Your task to perform on an android device: refresh tabs in the chrome app Image 0: 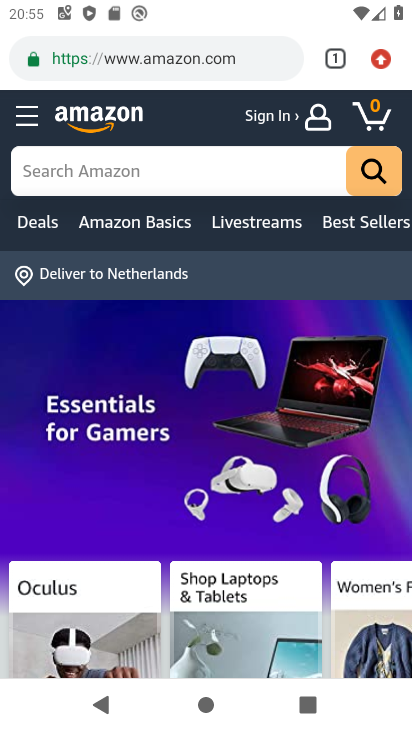
Step 0: click (381, 63)
Your task to perform on an android device: refresh tabs in the chrome app Image 1: 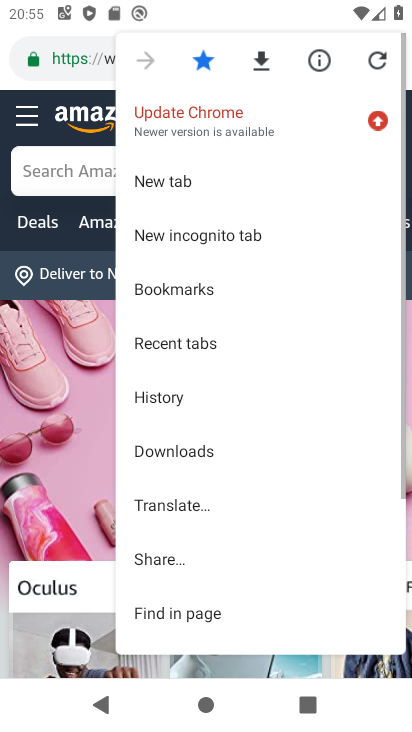
Step 1: click (381, 62)
Your task to perform on an android device: refresh tabs in the chrome app Image 2: 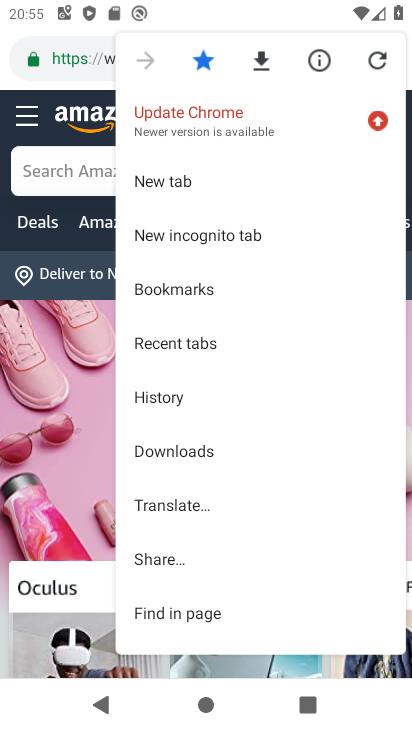
Step 2: click (367, 62)
Your task to perform on an android device: refresh tabs in the chrome app Image 3: 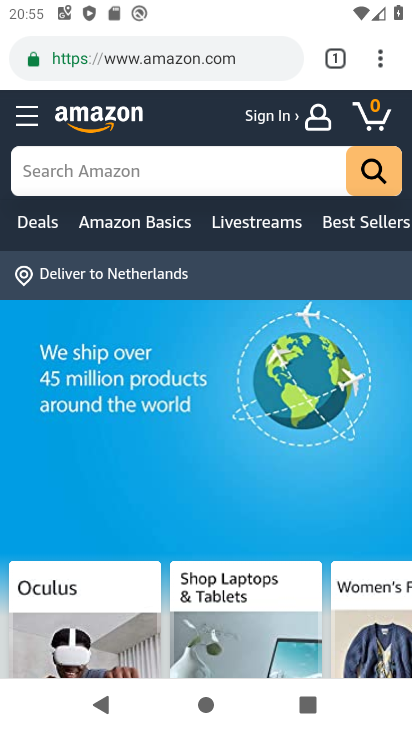
Step 3: task complete